Your task to perform on an android device: turn off improve location accuracy Image 0: 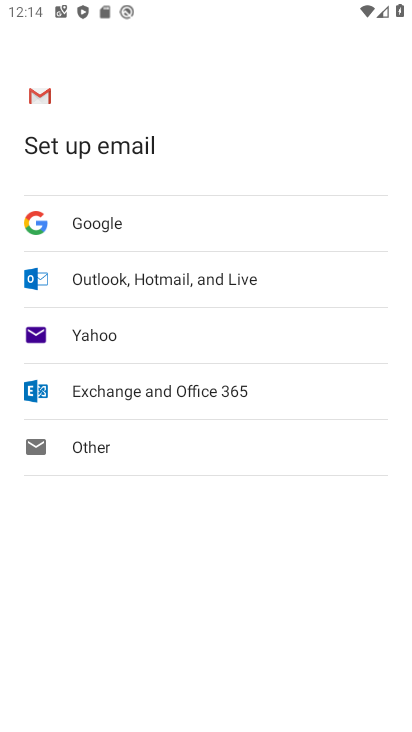
Step 0: press home button
Your task to perform on an android device: turn off improve location accuracy Image 1: 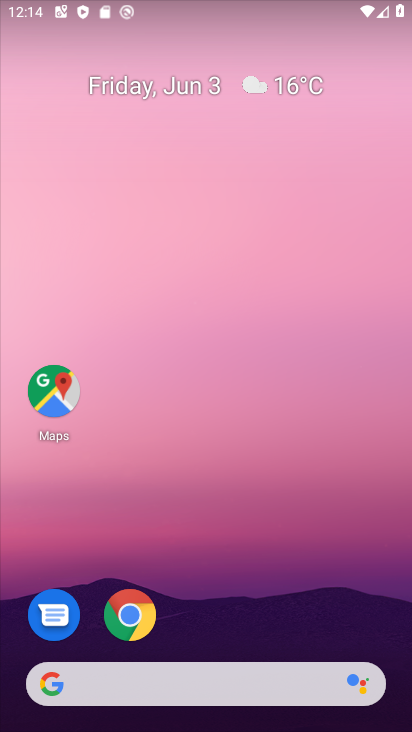
Step 1: drag from (208, 544) to (239, 191)
Your task to perform on an android device: turn off improve location accuracy Image 2: 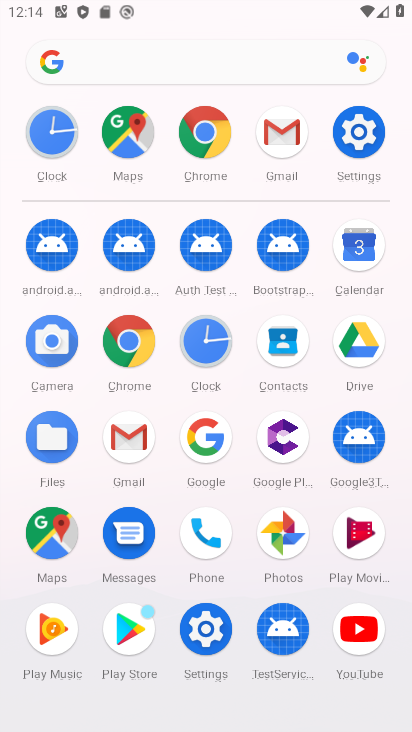
Step 2: click (354, 120)
Your task to perform on an android device: turn off improve location accuracy Image 3: 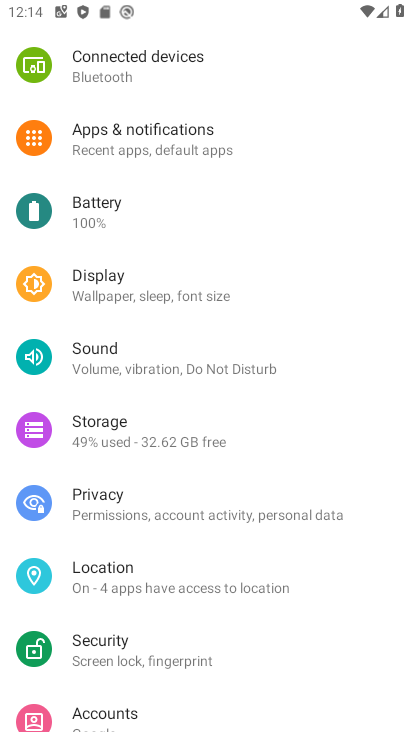
Step 3: click (168, 575)
Your task to perform on an android device: turn off improve location accuracy Image 4: 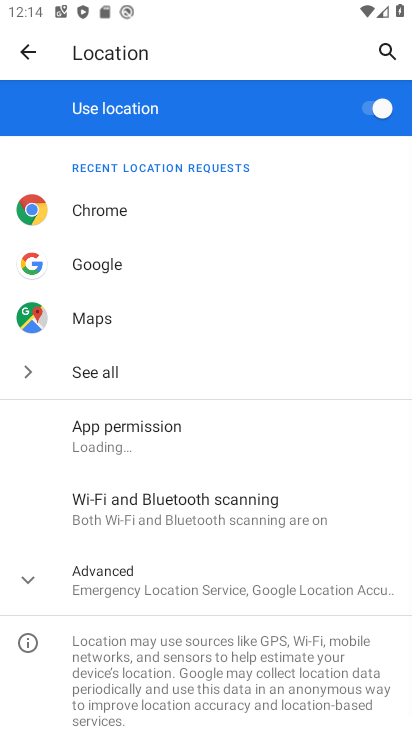
Step 4: click (200, 585)
Your task to perform on an android device: turn off improve location accuracy Image 5: 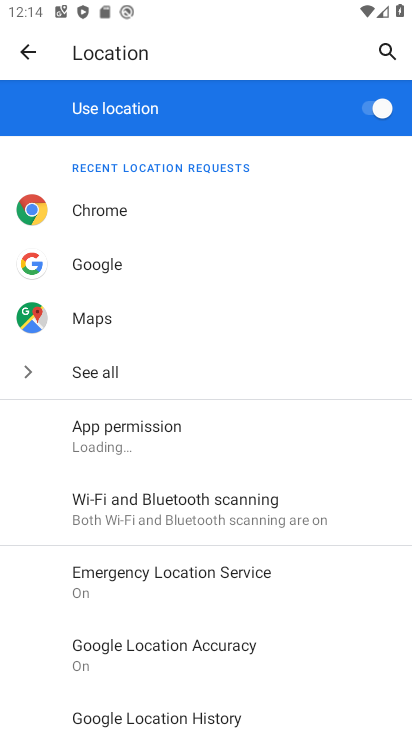
Step 5: drag from (224, 685) to (213, 540)
Your task to perform on an android device: turn off improve location accuracy Image 6: 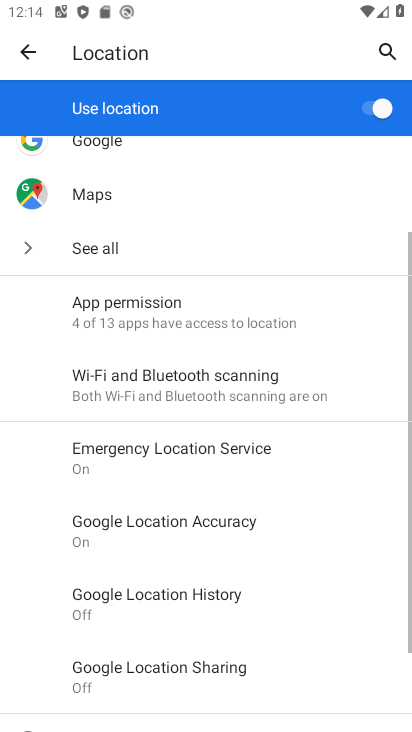
Step 6: click (157, 532)
Your task to perform on an android device: turn off improve location accuracy Image 7: 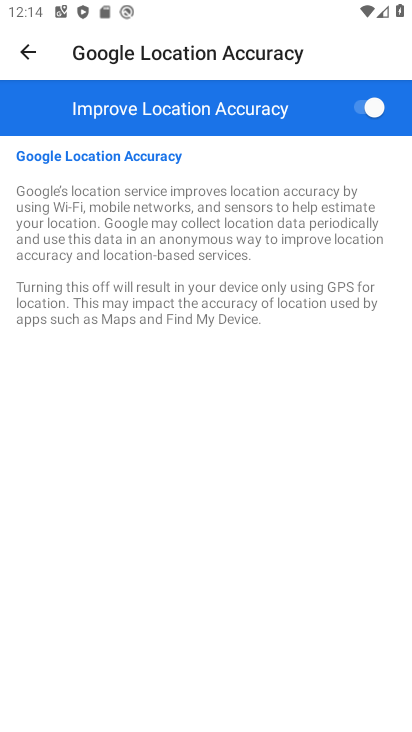
Step 7: click (365, 104)
Your task to perform on an android device: turn off improve location accuracy Image 8: 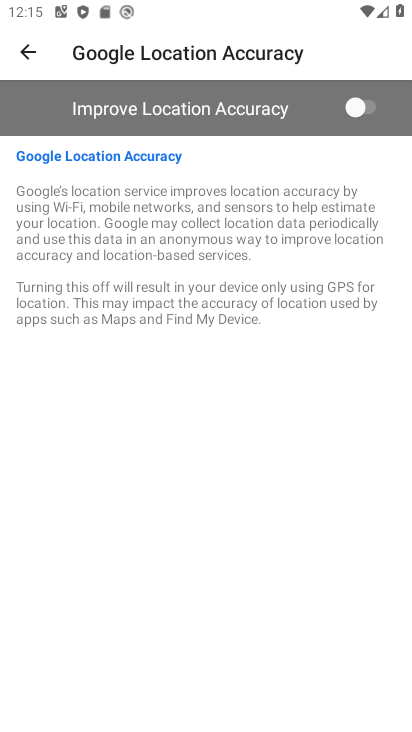
Step 8: task complete